Your task to perform on an android device: Open my contact list Image 0: 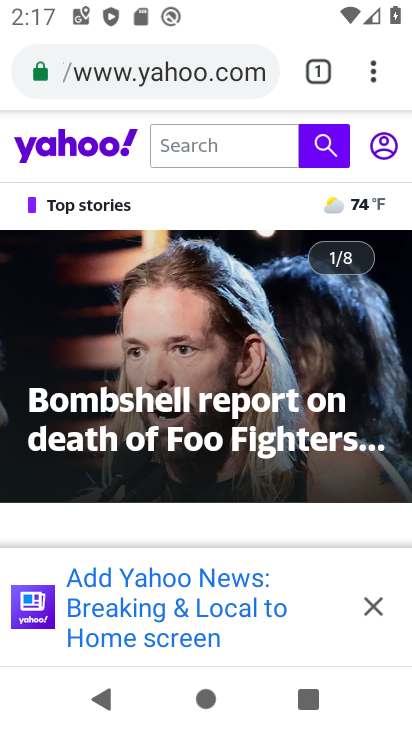
Step 0: press home button
Your task to perform on an android device: Open my contact list Image 1: 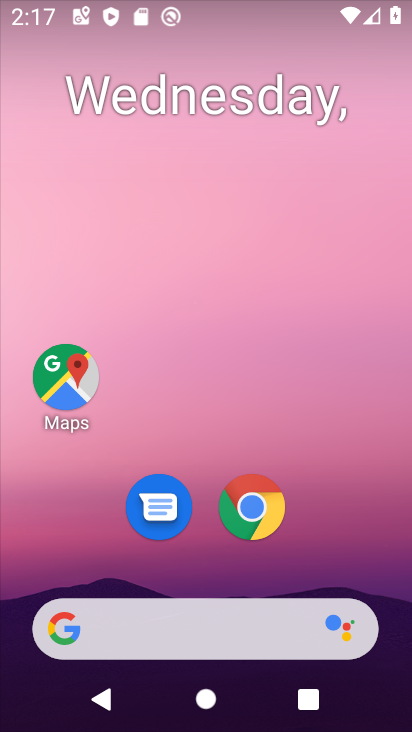
Step 1: drag from (360, 530) to (370, 87)
Your task to perform on an android device: Open my contact list Image 2: 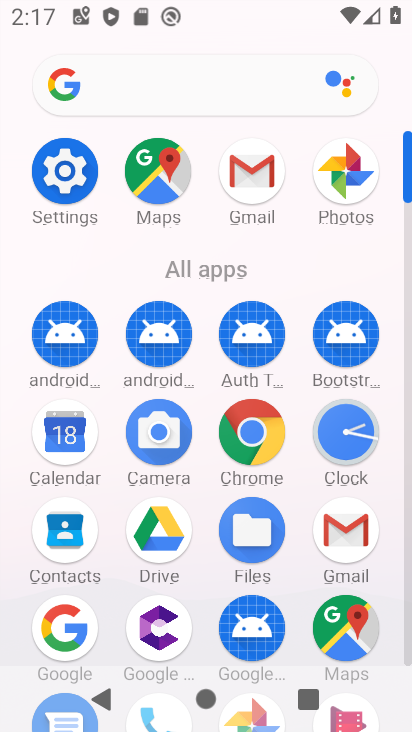
Step 2: click (62, 531)
Your task to perform on an android device: Open my contact list Image 3: 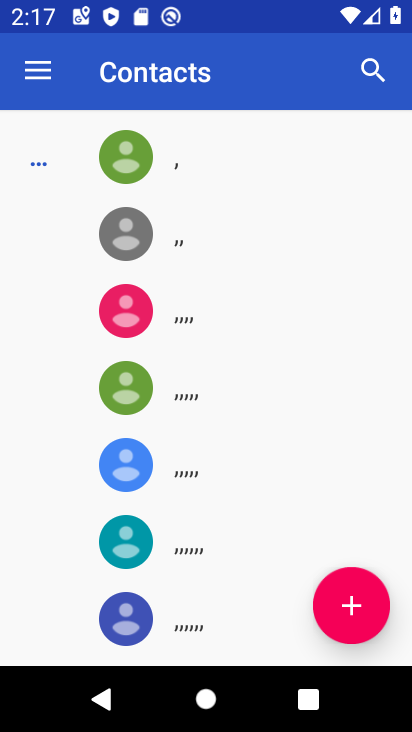
Step 3: task complete